Your task to perform on an android device: turn off airplane mode Image 0: 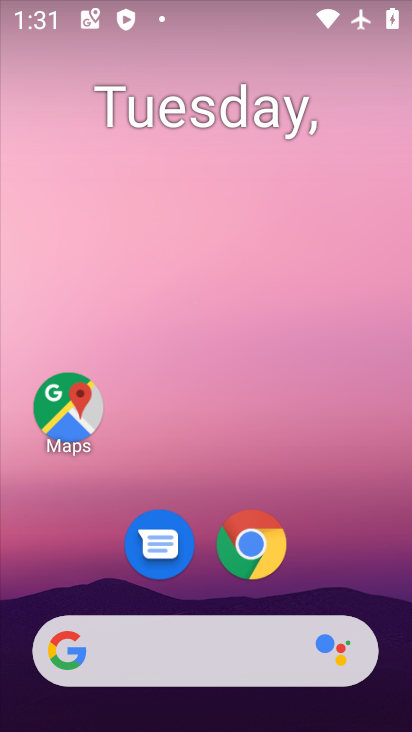
Step 0: drag from (388, 618) to (326, 114)
Your task to perform on an android device: turn off airplane mode Image 1: 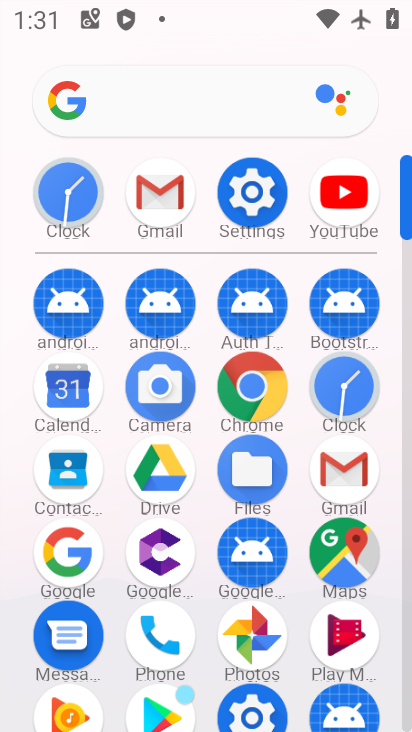
Step 1: click (409, 692)
Your task to perform on an android device: turn off airplane mode Image 2: 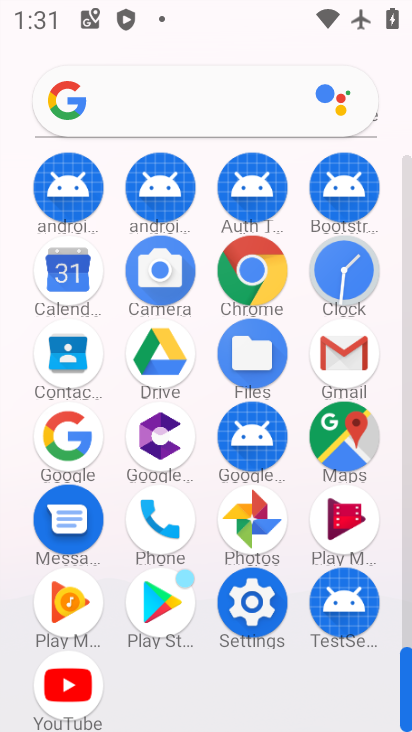
Step 2: click (253, 596)
Your task to perform on an android device: turn off airplane mode Image 3: 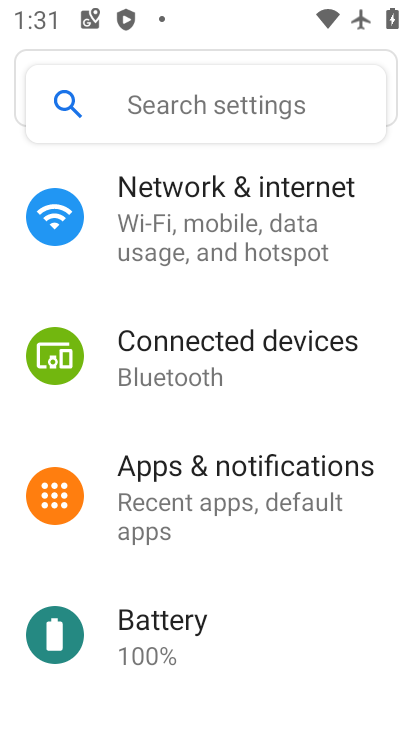
Step 3: click (160, 207)
Your task to perform on an android device: turn off airplane mode Image 4: 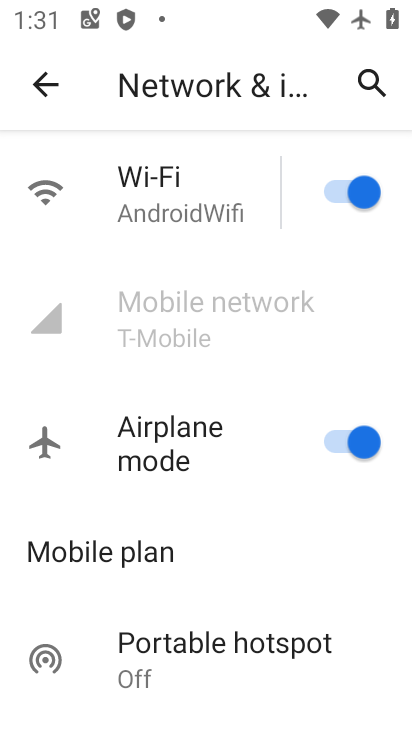
Step 4: click (334, 444)
Your task to perform on an android device: turn off airplane mode Image 5: 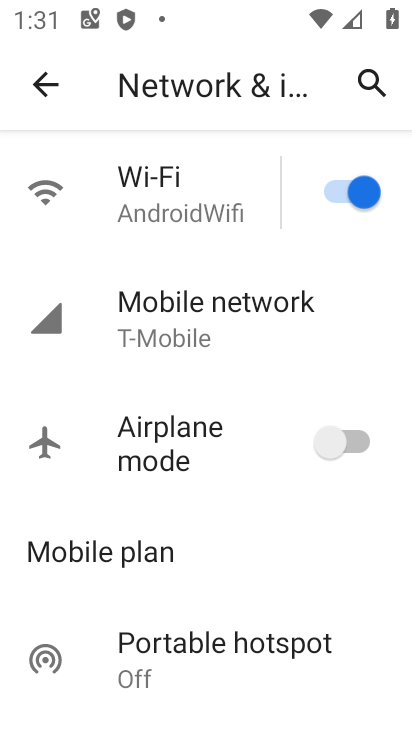
Step 5: task complete